Your task to perform on an android device: Open the Play Movies app and select the watchlist tab. Image 0: 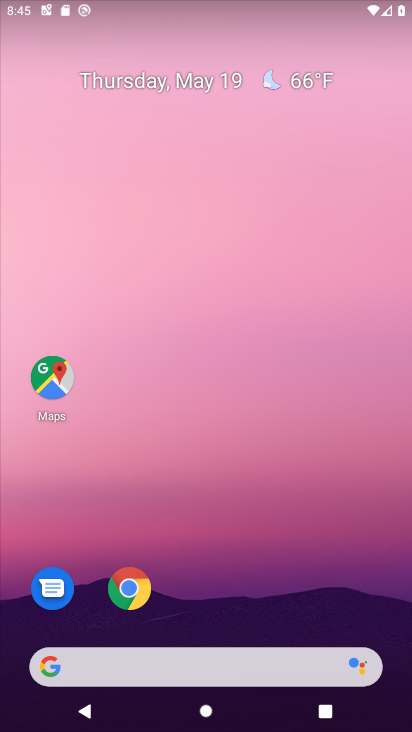
Step 0: drag from (359, 556) to (358, 153)
Your task to perform on an android device: Open the Play Movies app and select the watchlist tab. Image 1: 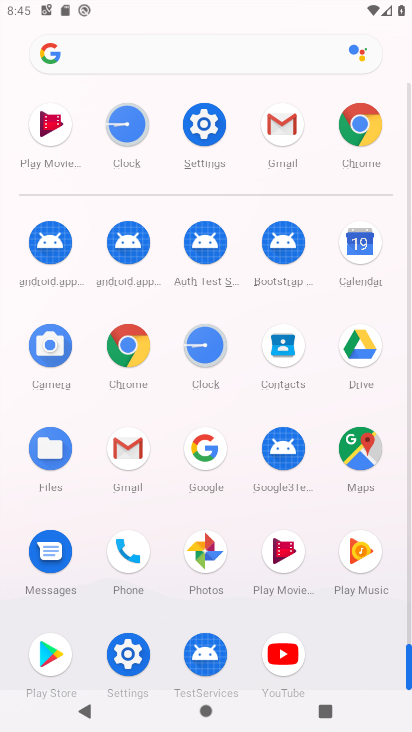
Step 1: click (278, 565)
Your task to perform on an android device: Open the Play Movies app and select the watchlist tab. Image 2: 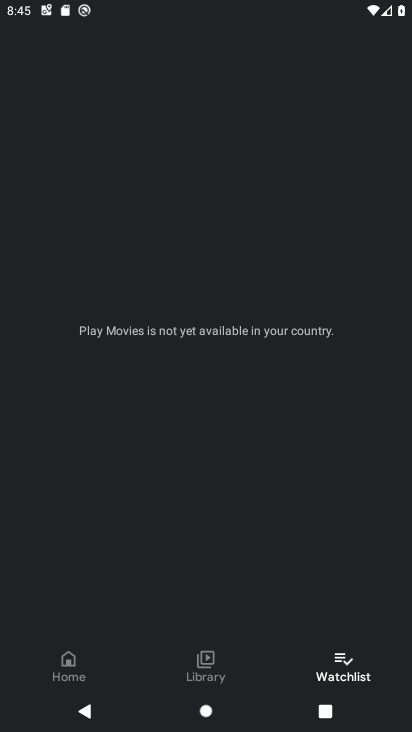
Step 2: task complete